Your task to perform on an android device: change notifications settings Image 0: 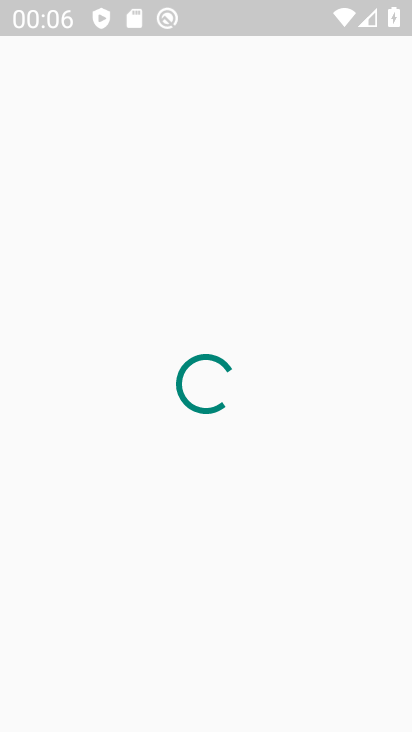
Step 0: press home button
Your task to perform on an android device: change notifications settings Image 1: 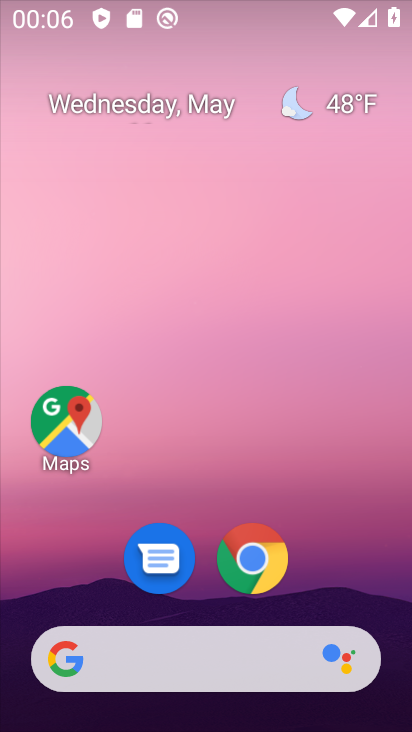
Step 1: drag from (330, 588) to (326, 205)
Your task to perform on an android device: change notifications settings Image 2: 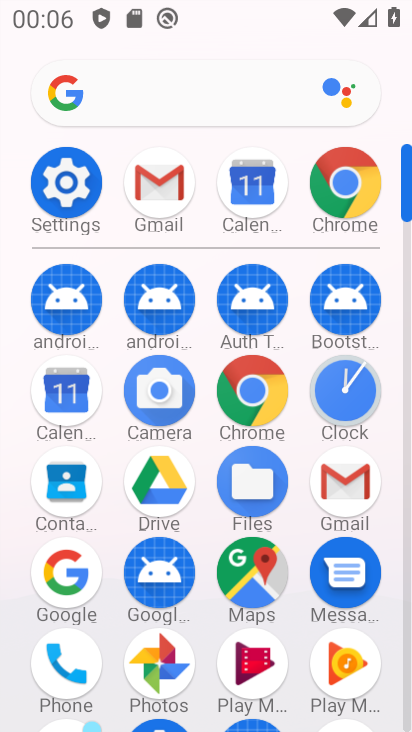
Step 2: click (86, 203)
Your task to perform on an android device: change notifications settings Image 3: 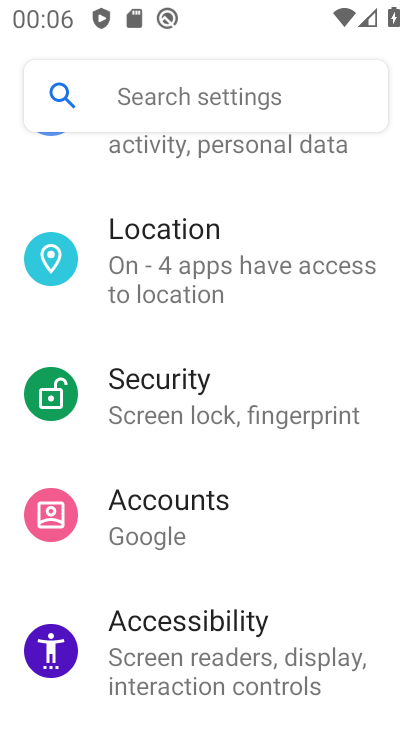
Step 3: drag from (269, 205) to (269, 432)
Your task to perform on an android device: change notifications settings Image 4: 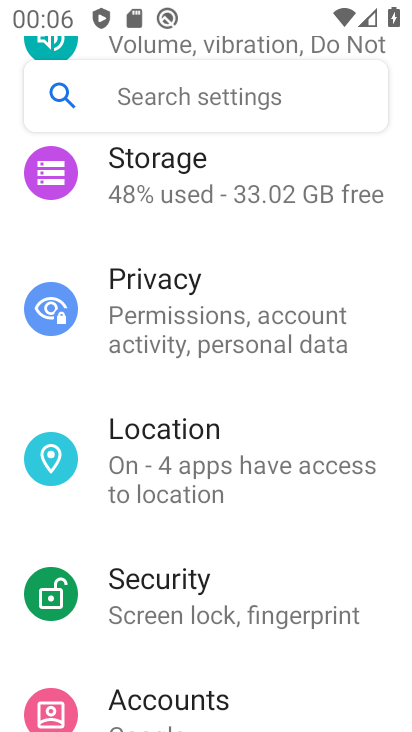
Step 4: drag from (271, 289) to (285, 533)
Your task to perform on an android device: change notifications settings Image 5: 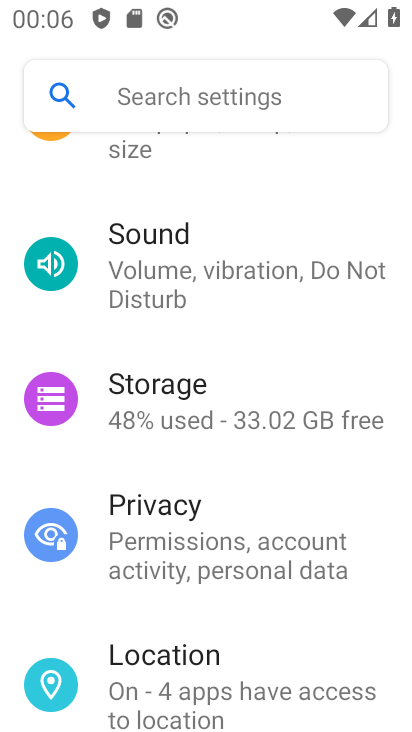
Step 5: drag from (259, 334) to (268, 524)
Your task to perform on an android device: change notifications settings Image 6: 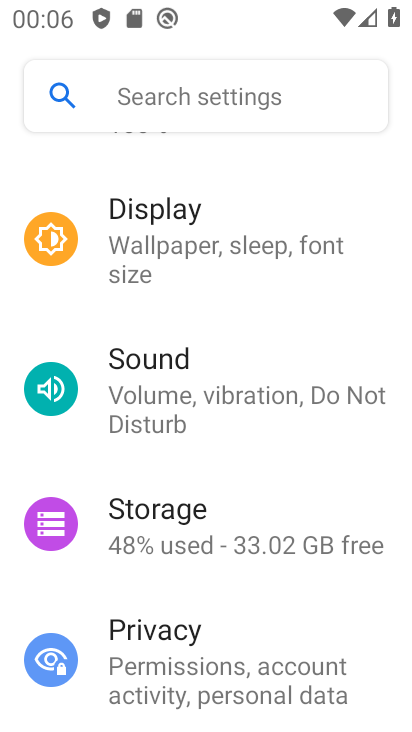
Step 6: drag from (232, 293) to (252, 644)
Your task to perform on an android device: change notifications settings Image 7: 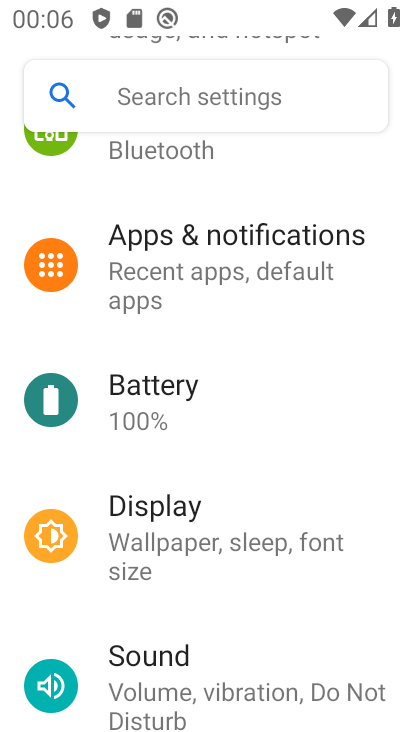
Step 7: click (217, 262)
Your task to perform on an android device: change notifications settings Image 8: 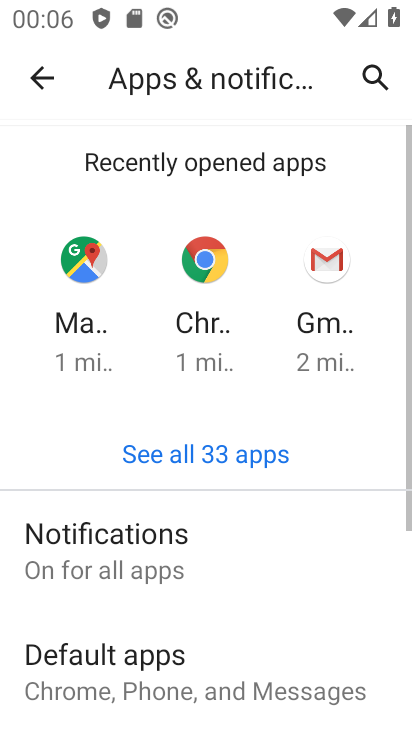
Step 8: click (129, 557)
Your task to perform on an android device: change notifications settings Image 9: 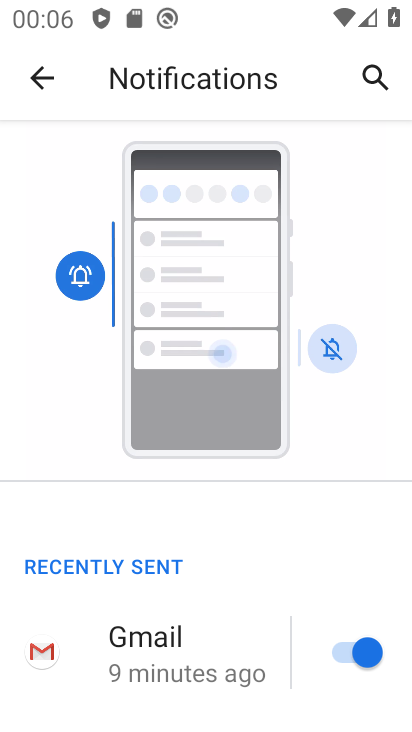
Step 9: drag from (217, 569) to (338, 241)
Your task to perform on an android device: change notifications settings Image 10: 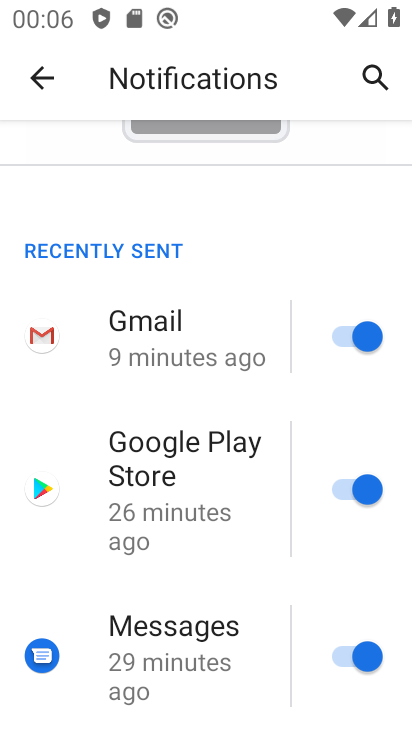
Step 10: drag from (247, 671) to (261, 383)
Your task to perform on an android device: change notifications settings Image 11: 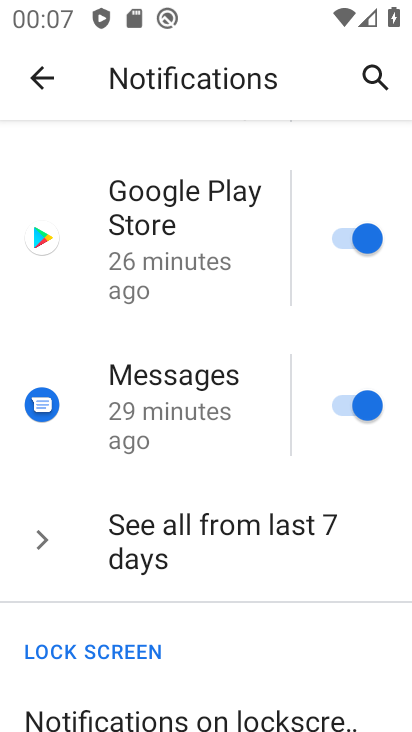
Step 11: click (329, 409)
Your task to perform on an android device: change notifications settings Image 12: 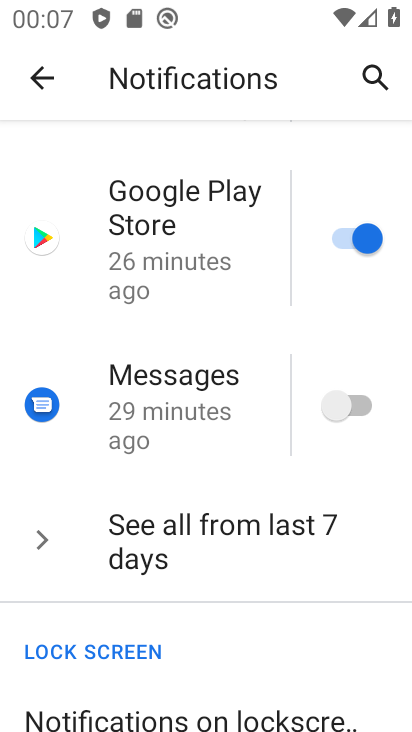
Step 12: task complete